Your task to perform on an android device: When is my next appointment? Image 0: 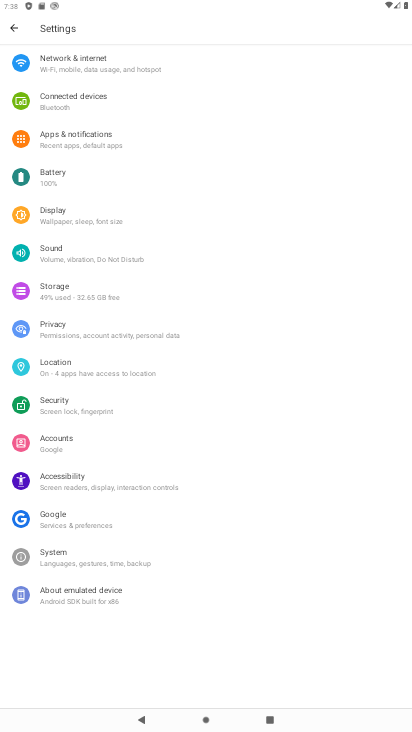
Step 0: press home button
Your task to perform on an android device: When is my next appointment? Image 1: 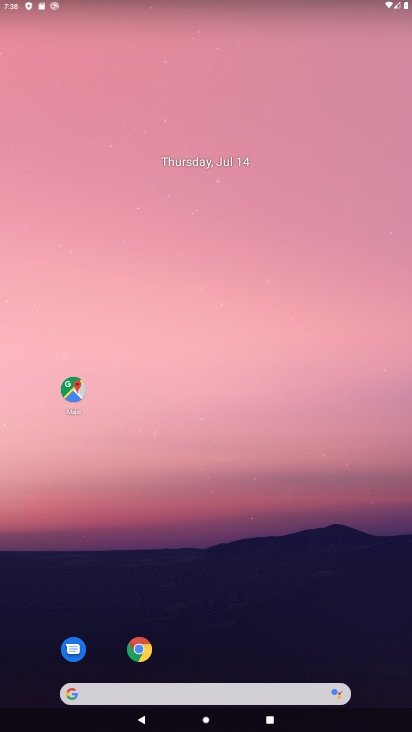
Step 1: drag from (285, 516) to (286, 206)
Your task to perform on an android device: When is my next appointment? Image 2: 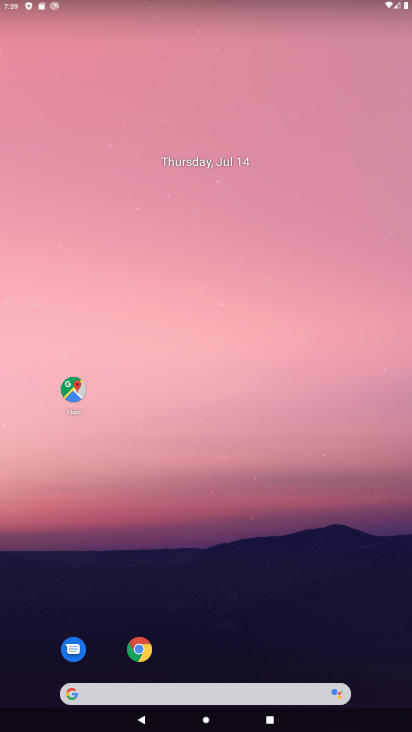
Step 2: drag from (308, 604) to (260, 110)
Your task to perform on an android device: When is my next appointment? Image 3: 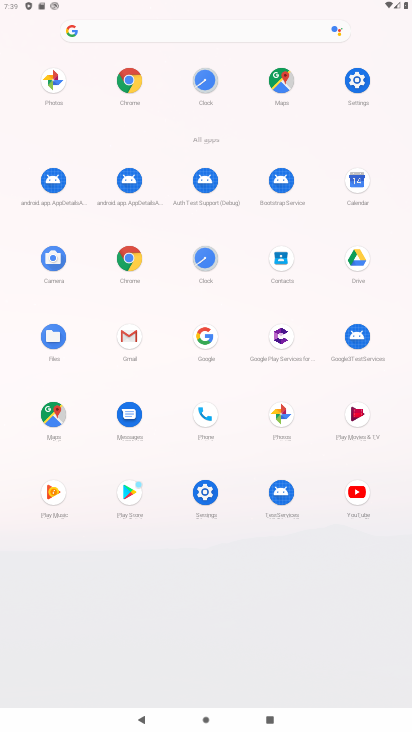
Step 3: click (356, 194)
Your task to perform on an android device: When is my next appointment? Image 4: 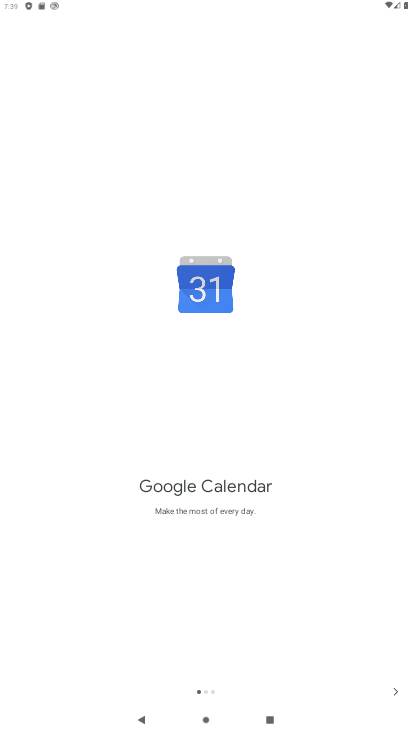
Step 4: click (395, 691)
Your task to perform on an android device: When is my next appointment? Image 5: 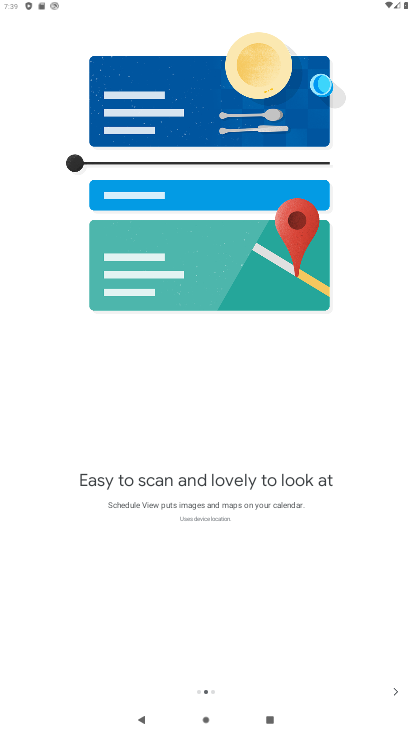
Step 5: click (395, 691)
Your task to perform on an android device: When is my next appointment? Image 6: 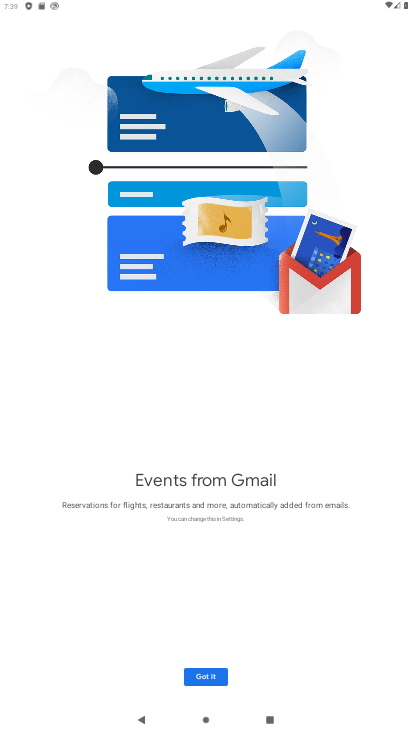
Step 6: click (208, 676)
Your task to perform on an android device: When is my next appointment? Image 7: 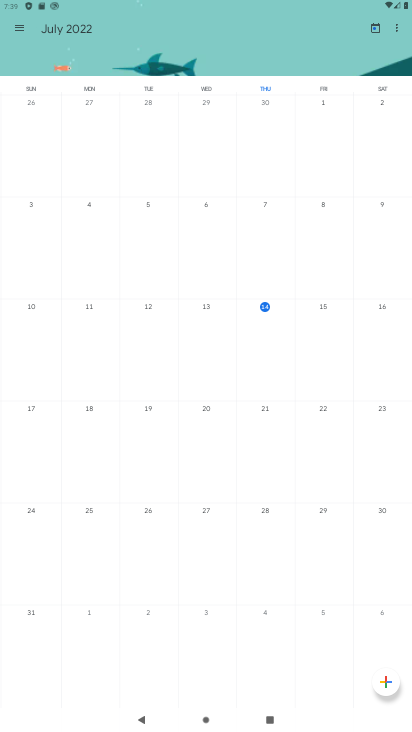
Step 7: task complete